Your task to perform on an android device: turn on javascript in the chrome app Image 0: 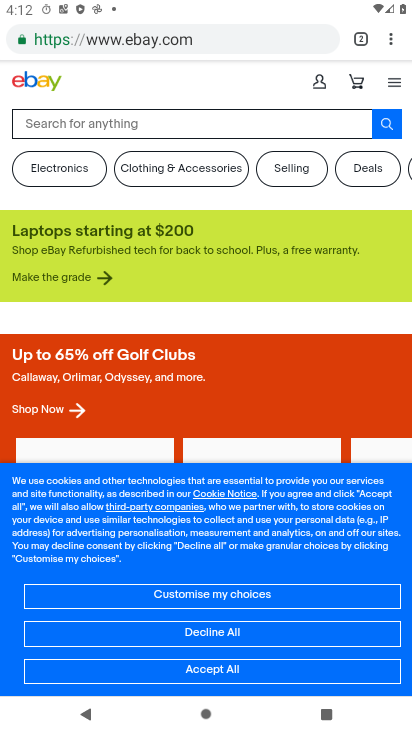
Step 0: task complete